Your task to perform on an android device: search for accent chairs on article.com Image 0: 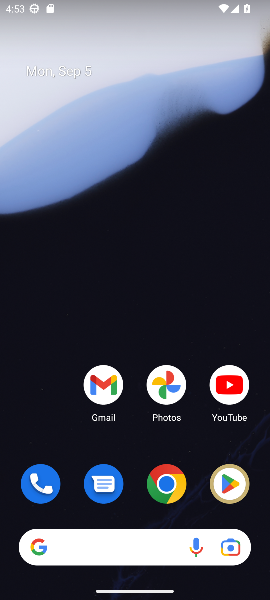
Step 0: click (170, 477)
Your task to perform on an android device: search for accent chairs on article.com Image 1: 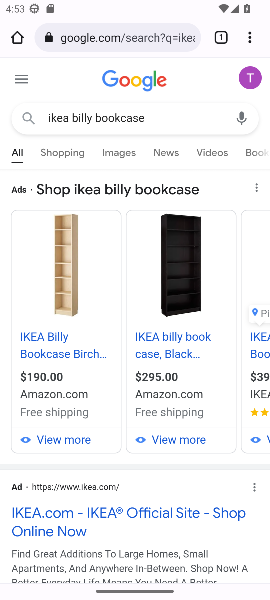
Step 1: click (148, 36)
Your task to perform on an android device: search for accent chairs on article.com Image 2: 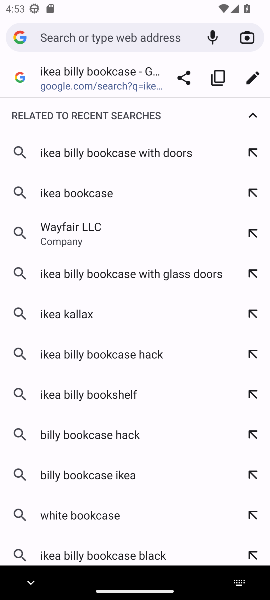
Step 2: type "article.com"
Your task to perform on an android device: search for accent chairs on article.com Image 3: 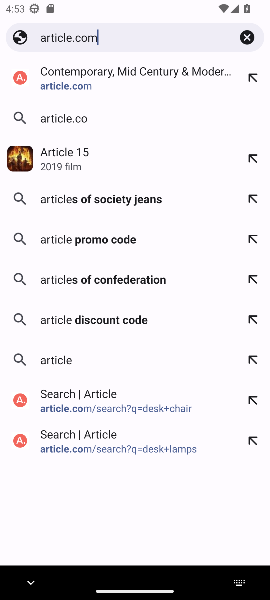
Step 3: press enter
Your task to perform on an android device: search for accent chairs on article.com Image 4: 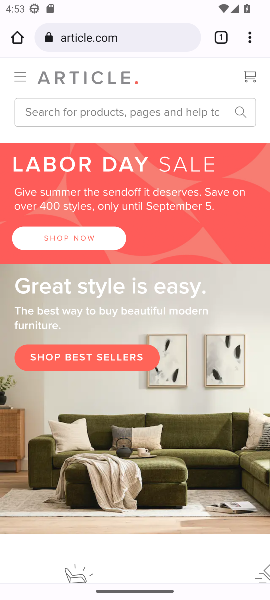
Step 4: click (136, 106)
Your task to perform on an android device: search for accent chairs on article.com Image 5: 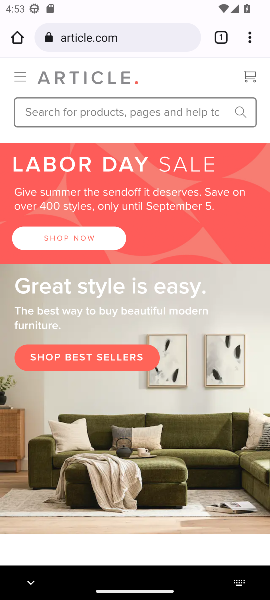
Step 5: type "accent chairs"
Your task to perform on an android device: search for accent chairs on article.com Image 6: 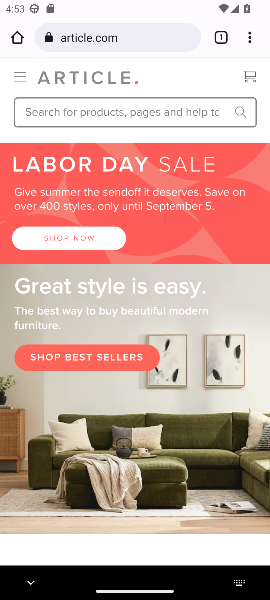
Step 6: press enter
Your task to perform on an android device: search for accent chairs on article.com Image 7: 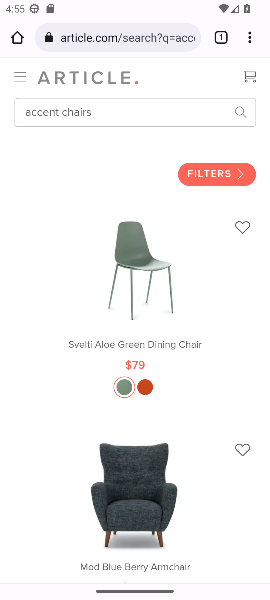
Step 7: task complete